Your task to perform on an android device: Open Google Chrome Image 0: 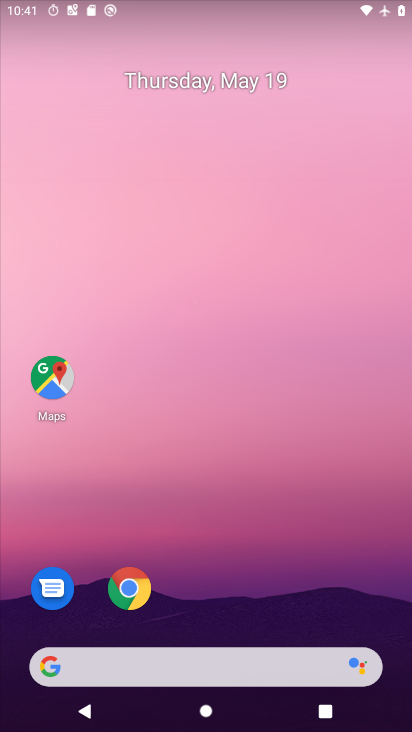
Step 0: click (134, 593)
Your task to perform on an android device: Open Google Chrome Image 1: 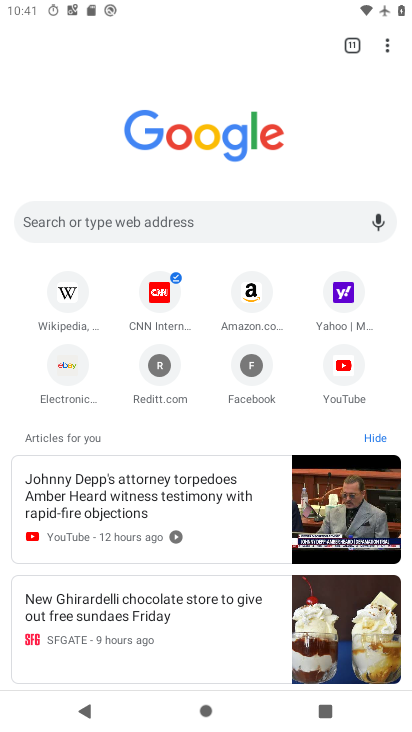
Step 1: task complete